Your task to perform on an android device: turn off translation in the chrome app Image 0: 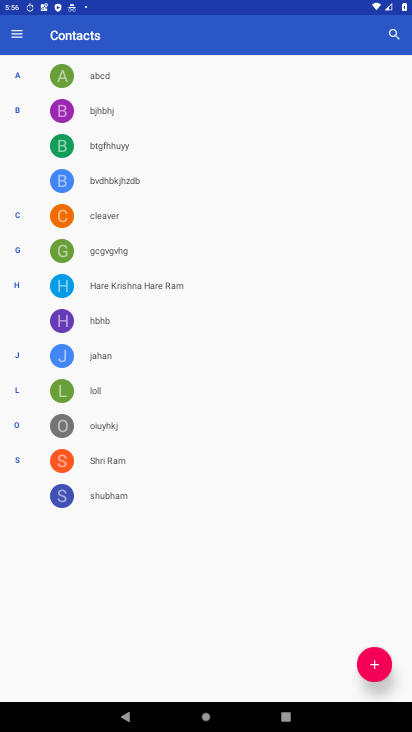
Step 0: press home button
Your task to perform on an android device: turn off translation in the chrome app Image 1: 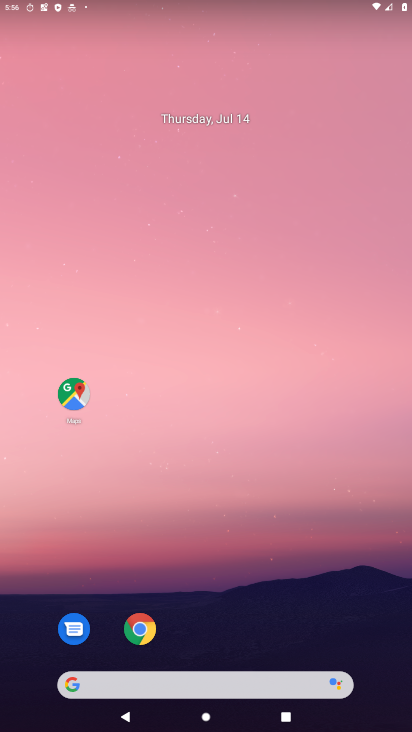
Step 1: drag from (298, 686) to (361, 4)
Your task to perform on an android device: turn off translation in the chrome app Image 2: 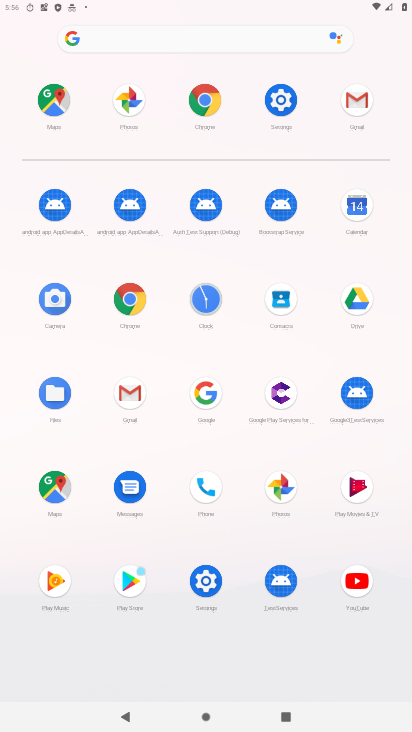
Step 2: click (141, 301)
Your task to perform on an android device: turn off translation in the chrome app Image 3: 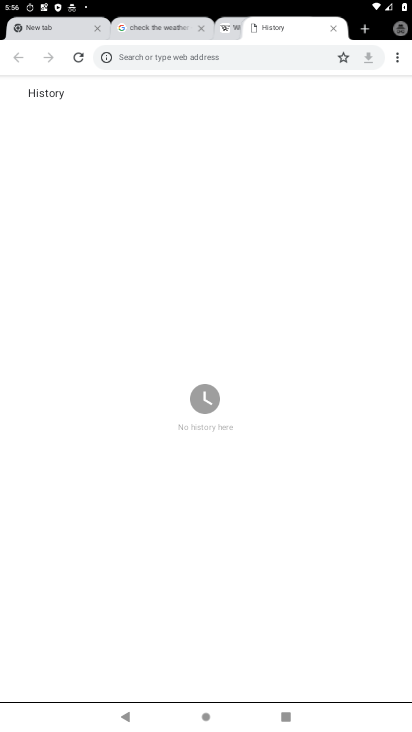
Step 3: click (401, 54)
Your task to perform on an android device: turn off translation in the chrome app Image 4: 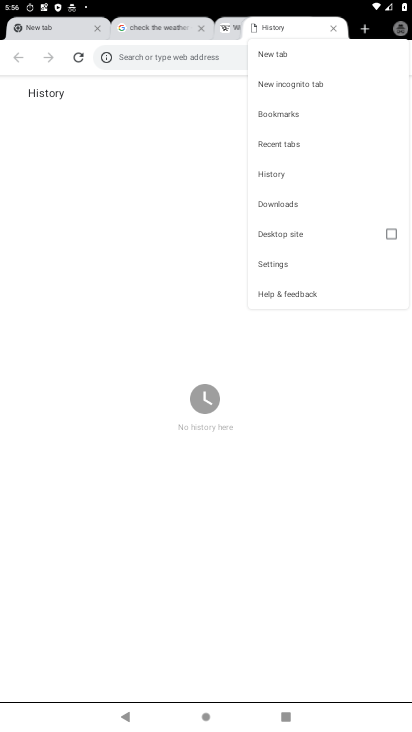
Step 4: click (293, 258)
Your task to perform on an android device: turn off translation in the chrome app Image 5: 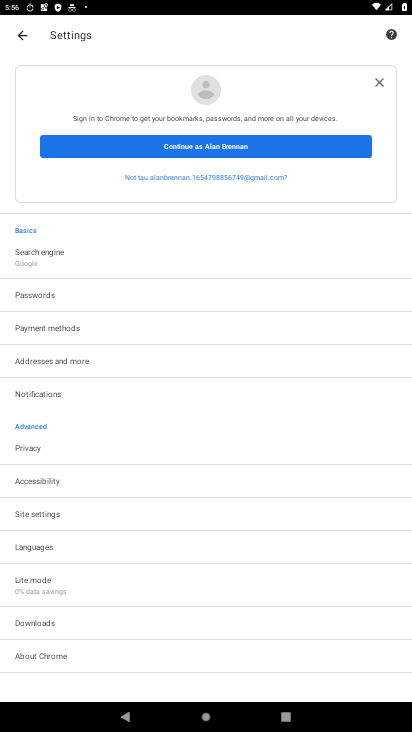
Step 5: click (56, 551)
Your task to perform on an android device: turn off translation in the chrome app Image 6: 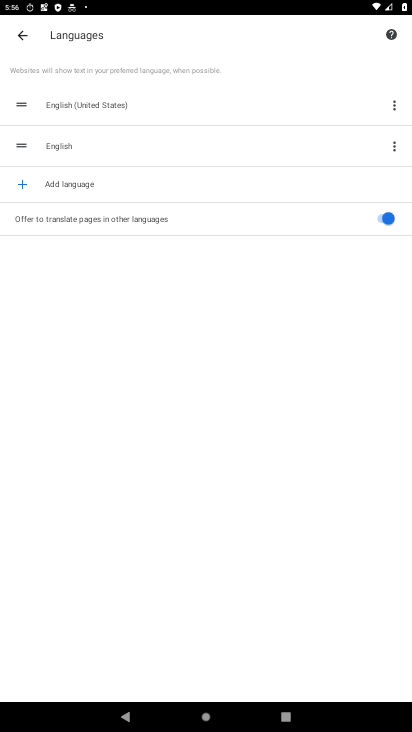
Step 6: click (381, 218)
Your task to perform on an android device: turn off translation in the chrome app Image 7: 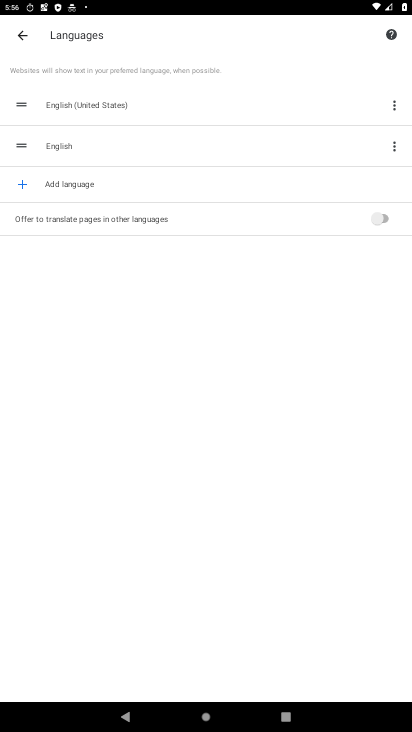
Step 7: task complete